Your task to perform on an android device: make emails show in primary in the gmail app Image 0: 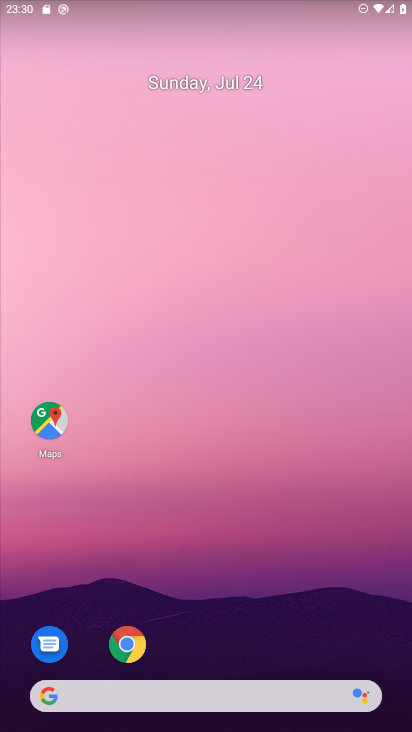
Step 0: drag from (381, 644) to (348, 88)
Your task to perform on an android device: make emails show in primary in the gmail app Image 1: 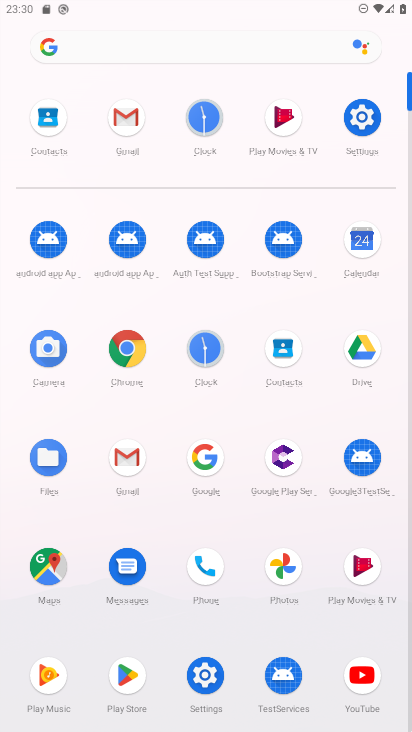
Step 1: click (127, 458)
Your task to perform on an android device: make emails show in primary in the gmail app Image 2: 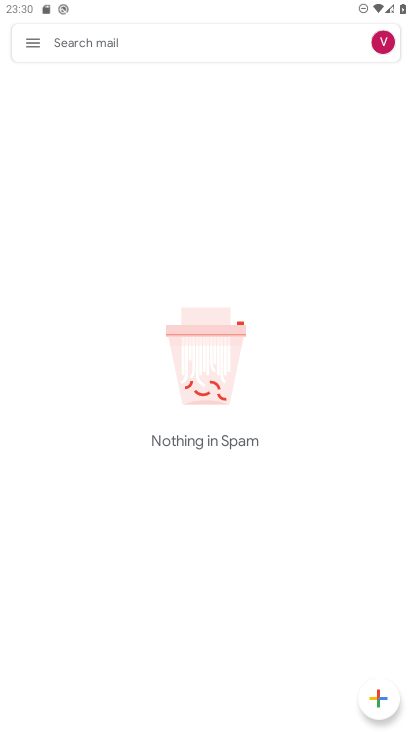
Step 2: click (29, 35)
Your task to perform on an android device: make emails show in primary in the gmail app Image 3: 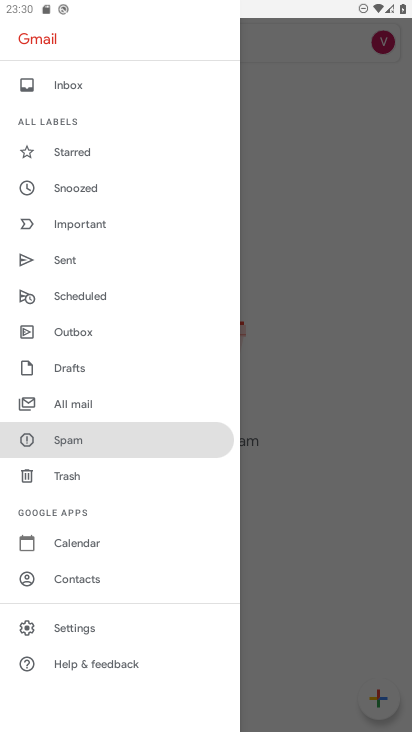
Step 3: click (78, 627)
Your task to perform on an android device: make emails show in primary in the gmail app Image 4: 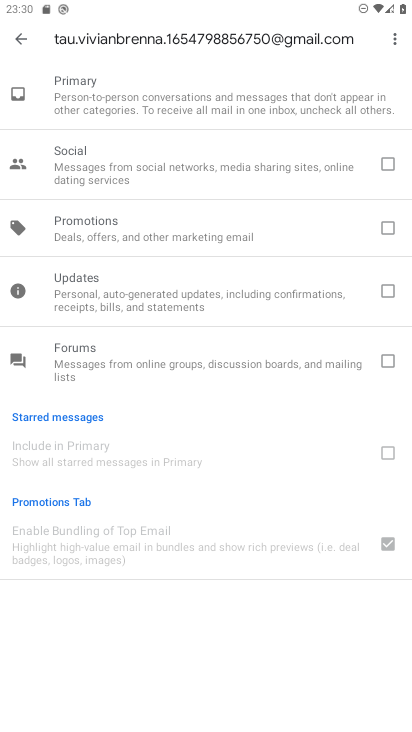
Step 4: task complete